Your task to perform on an android device: clear all cookies in the chrome app Image 0: 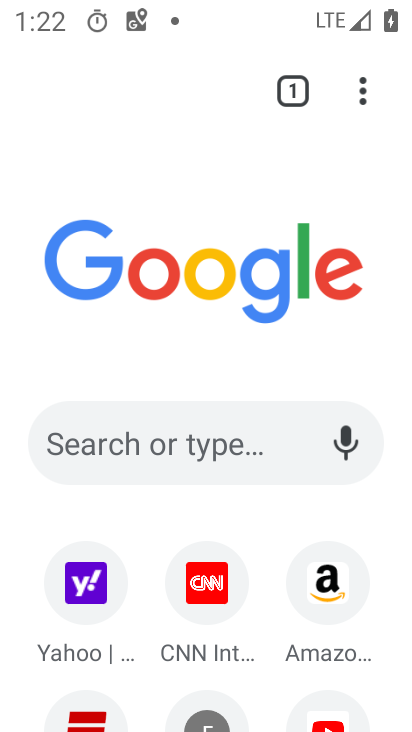
Step 0: click (361, 100)
Your task to perform on an android device: clear all cookies in the chrome app Image 1: 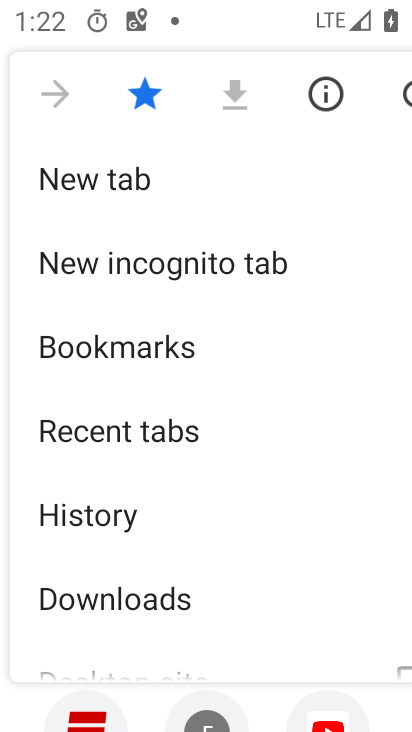
Step 1: drag from (261, 568) to (270, 394)
Your task to perform on an android device: clear all cookies in the chrome app Image 2: 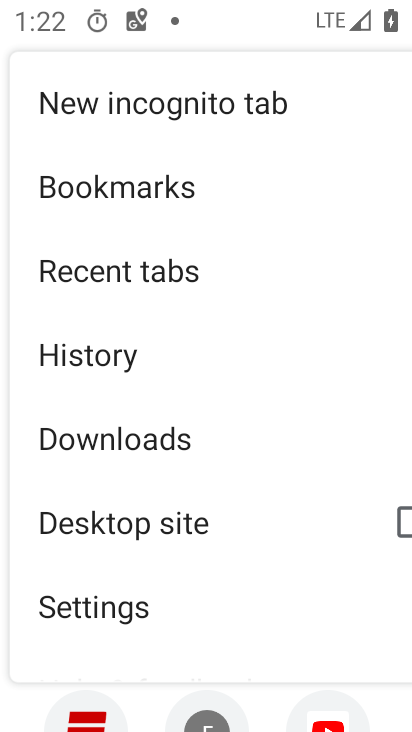
Step 2: drag from (280, 579) to (303, 451)
Your task to perform on an android device: clear all cookies in the chrome app Image 3: 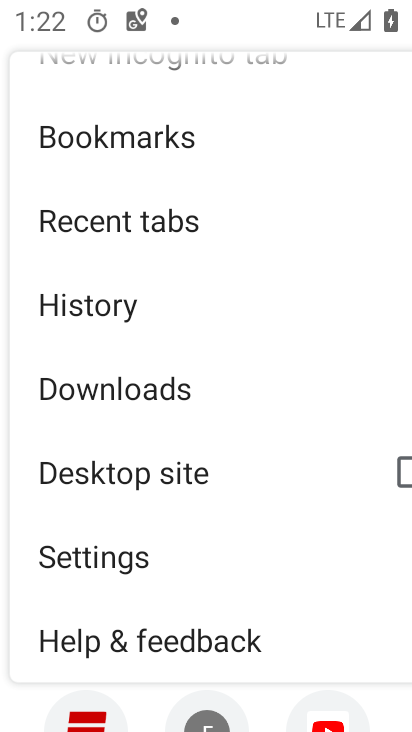
Step 3: drag from (273, 576) to (273, 436)
Your task to perform on an android device: clear all cookies in the chrome app Image 4: 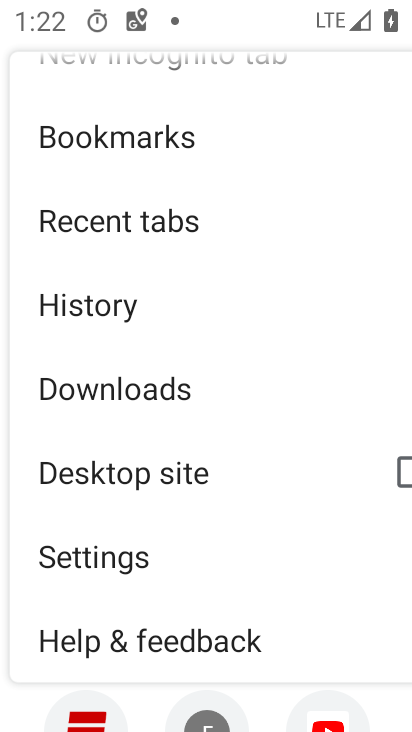
Step 4: click (154, 566)
Your task to perform on an android device: clear all cookies in the chrome app Image 5: 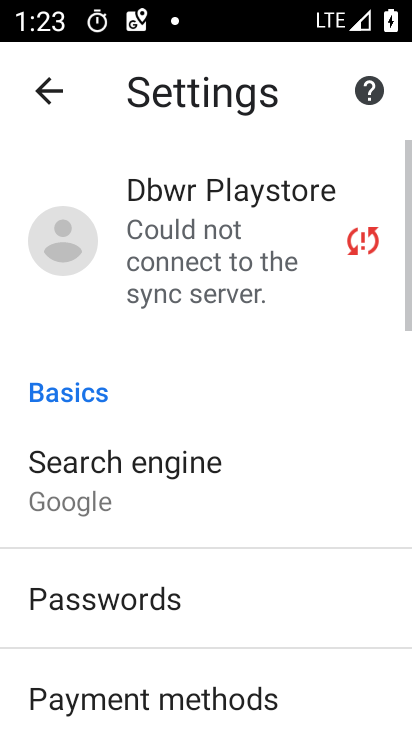
Step 5: drag from (288, 639) to (314, 499)
Your task to perform on an android device: clear all cookies in the chrome app Image 6: 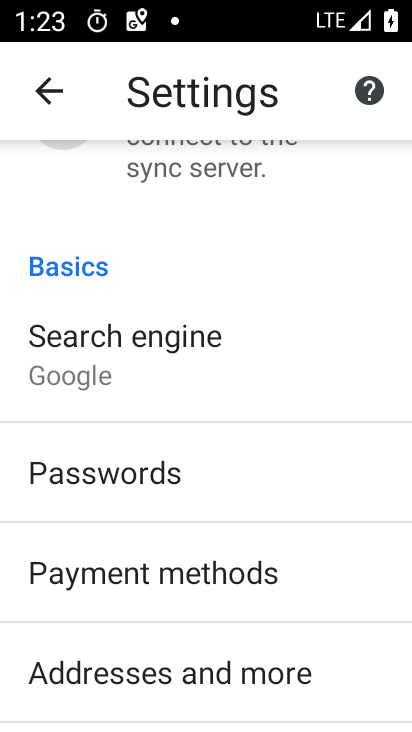
Step 6: drag from (366, 594) to (369, 471)
Your task to perform on an android device: clear all cookies in the chrome app Image 7: 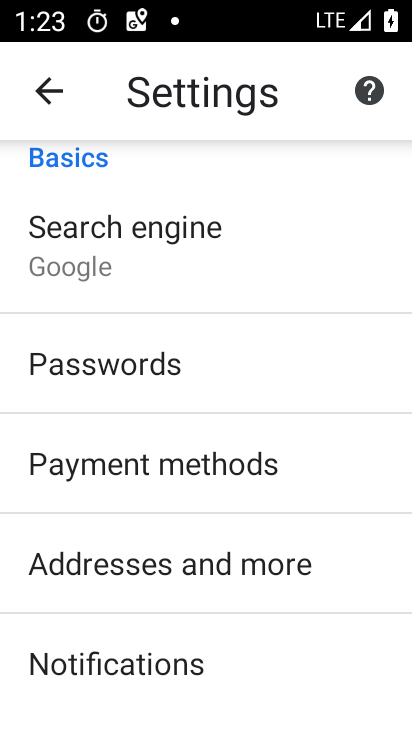
Step 7: drag from (362, 600) to (357, 479)
Your task to perform on an android device: clear all cookies in the chrome app Image 8: 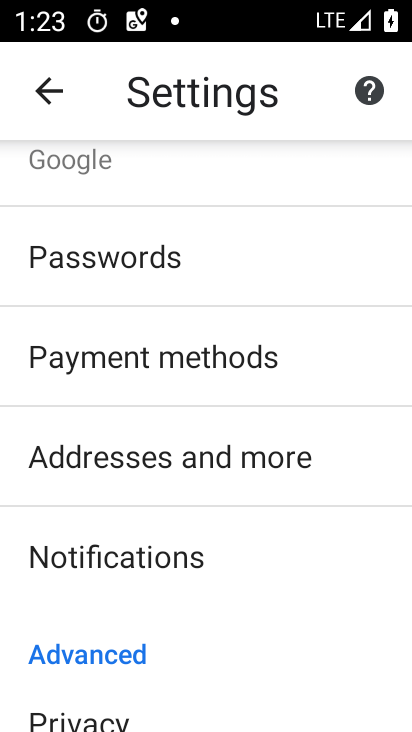
Step 8: drag from (336, 610) to (335, 473)
Your task to perform on an android device: clear all cookies in the chrome app Image 9: 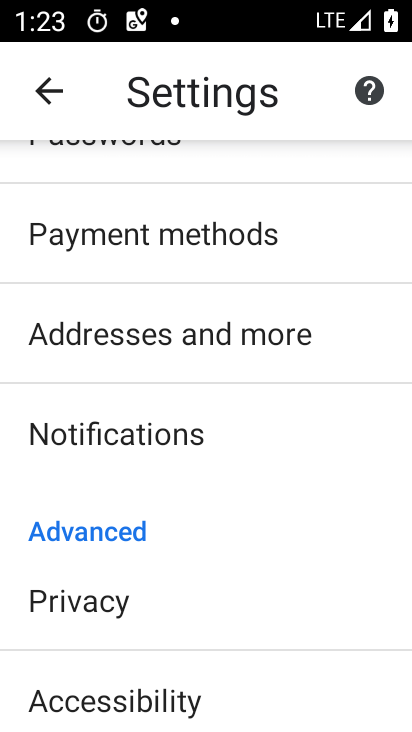
Step 9: drag from (333, 617) to (336, 514)
Your task to perform on an android device: clear all cookies in the chrome app Image 10: 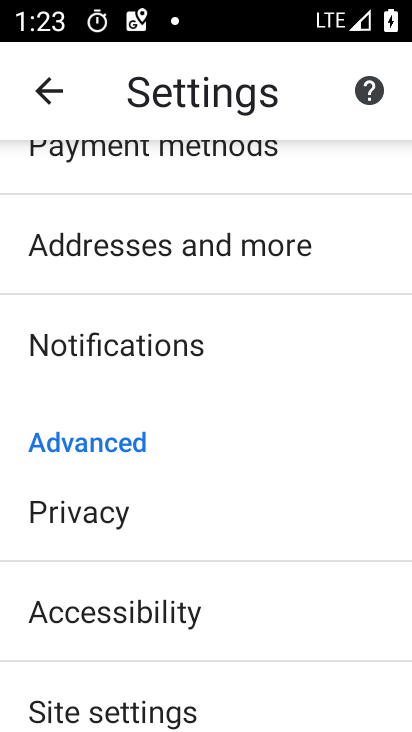
Step 10: drag from (353, 654) to (358, 527)
Your task to perform on an android device: clear all cookies in the chrome app Image 11: 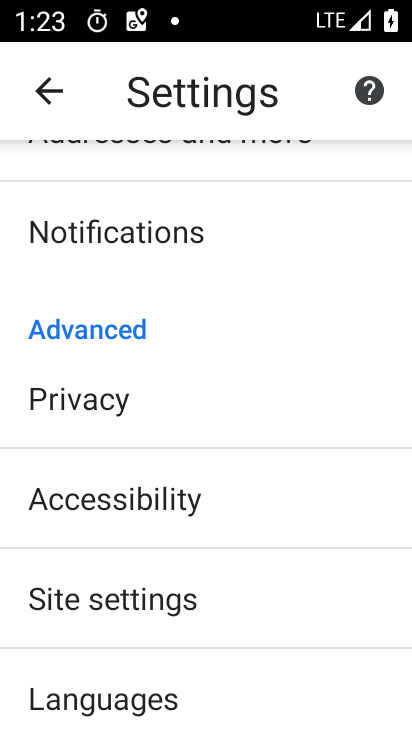
Step 11: drag from (352, 643) to (334, 534)
Your task to perform on an android device: clear all cookies in the chrome app Image 12: 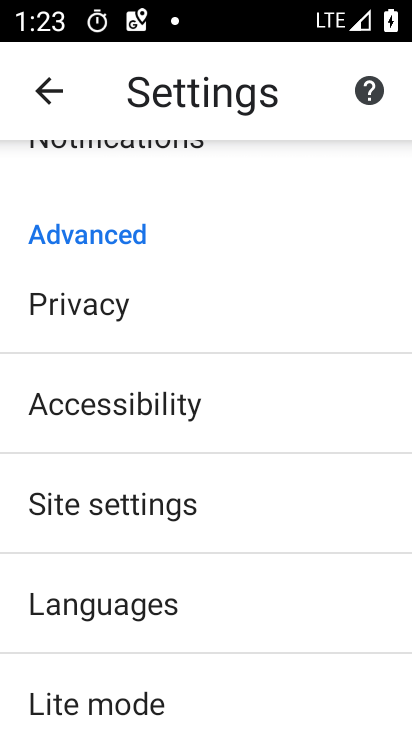
Step 12: drag from (348, 631) to (353, 557)
Your task to perform on an android device: clear all cookies in the chrome app Image 13: 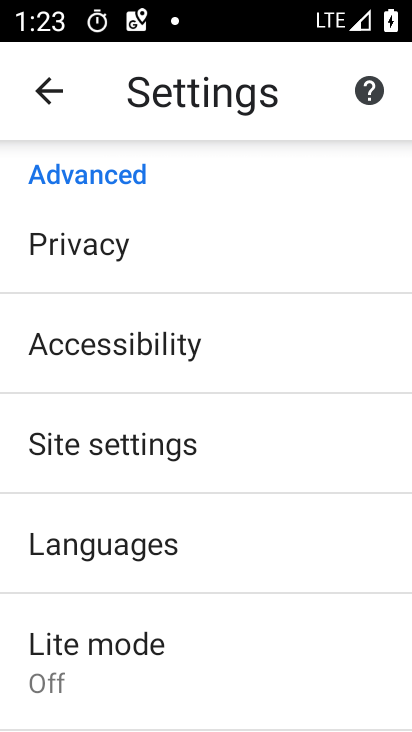
Step 13: click (273, 271)
Your task to perform on an android device: clear all cookies in the chrome app Image 14: 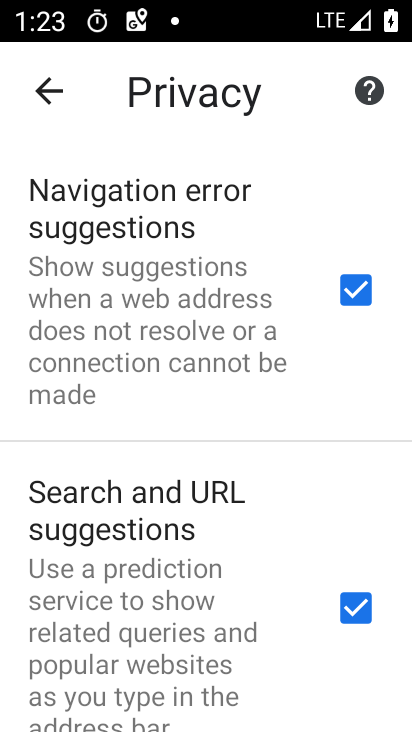
Step 14: drag from (286, 568) to (290, 469)
Your task to perform on an android device: clear all cookies in the chrome app Image 15: 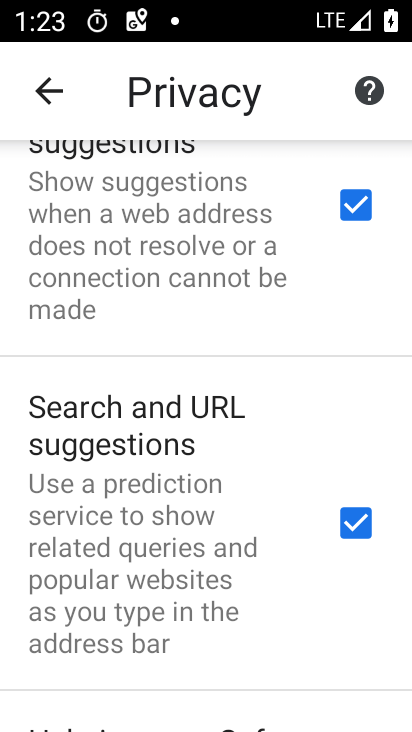
Step 15: drag from (261, 592) to (270, 449)
Your task to perform on an android device: clear all cookies in the chrome app Image 16: 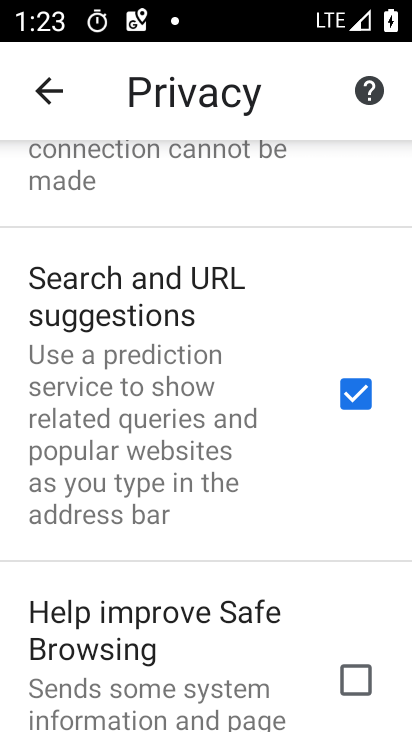
Step 16: drag from (302, 586) to (294, 461)
Your task to perform on an android device: clear all cookies in the chrome app Image 17: 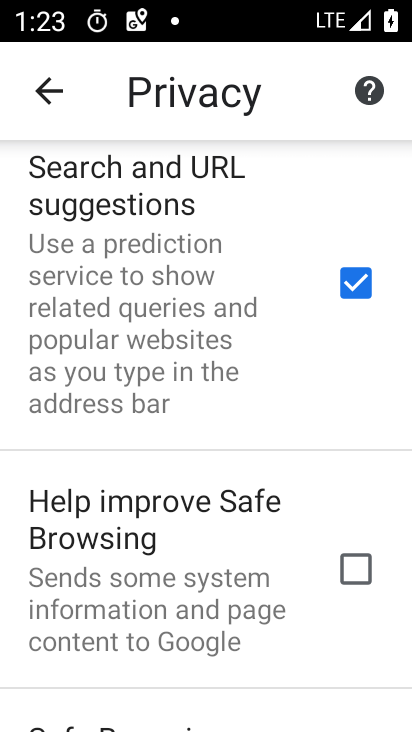
Step 17: drag from (316, 611) to (298, 498)
Your task to perform on an android device: clear all cookies in the chrome app Image 18: 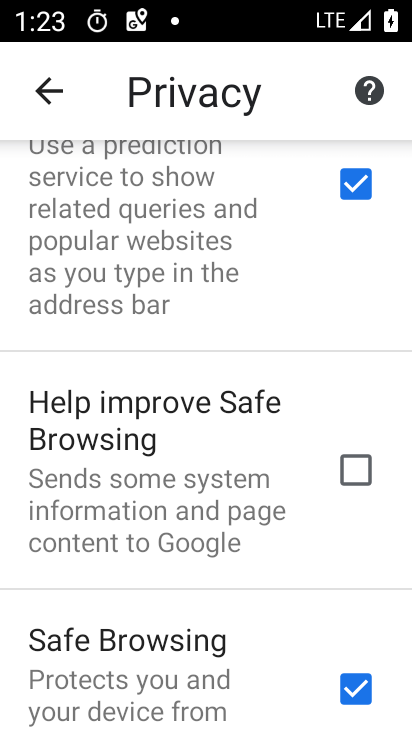
Step 18: drag from (286, 589) to (284, 510)
Your task to perform on an android device: clear all cookies in the chrome app Image 19: 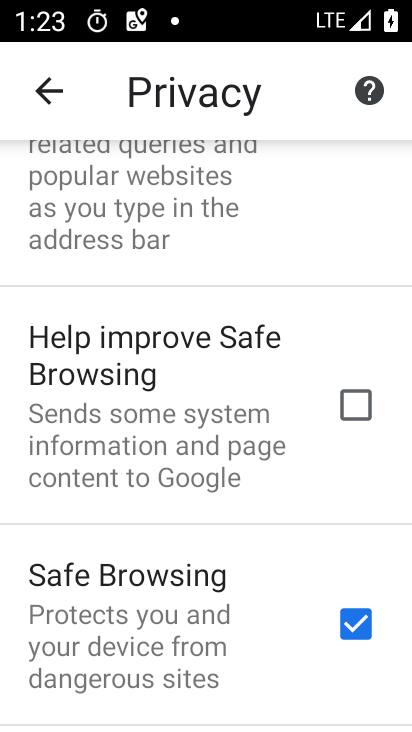
Step 19: drag from (266, 641) to (266, 505)
Your task to perform on an android device: clear all cookies in the chrome app Image 20: 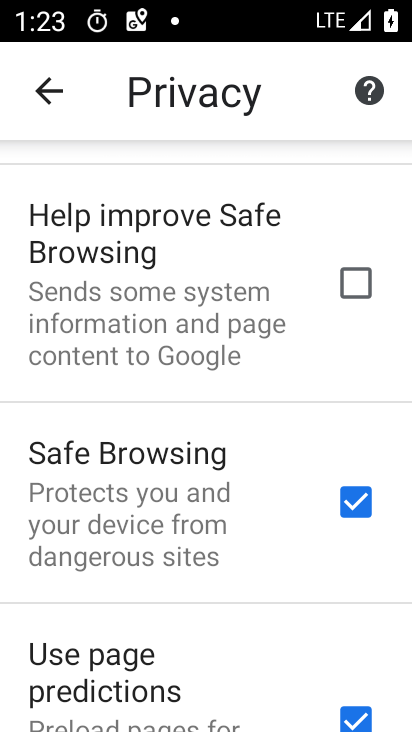
Step 20: drag from (273, 623) to (292, 492)
Your task to perform on an android device: clear all cookies in the chrome app Image 21: 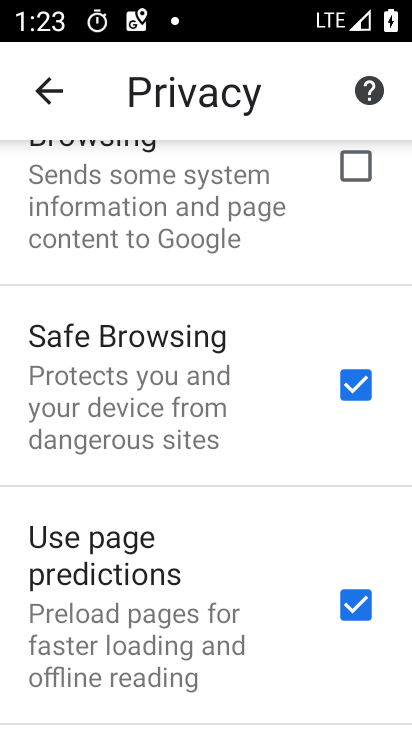
Step 21: drag from (276, 617) to (281, 487)
Your task to perform on an android device: clear all cookies in the chrome app Image 22: 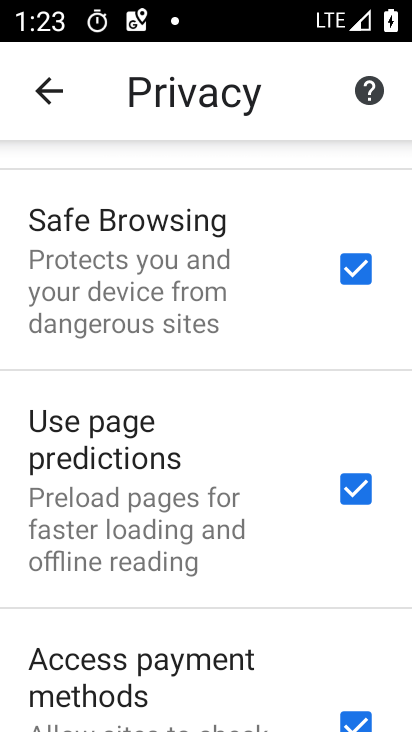
Step 22: drag from (262, 661) to (263, 537)
Your task to perform on an android device: clear all cookies in the chrome app Image 23: 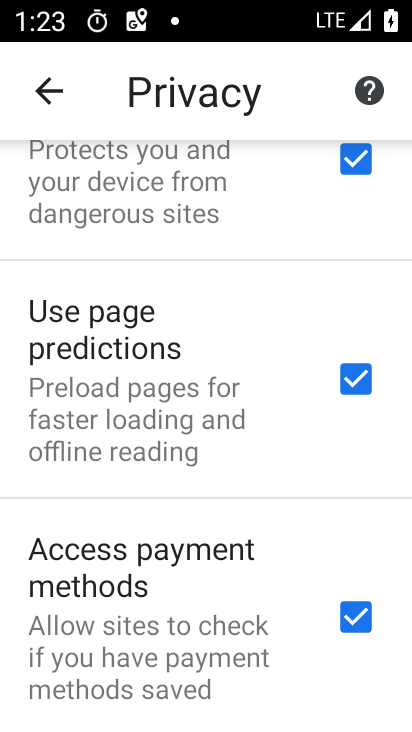
Step 23: drag from (274, 646) to (286, 516)
Your task to perform on an android device: clear all cookies in the chrome app Image 24: 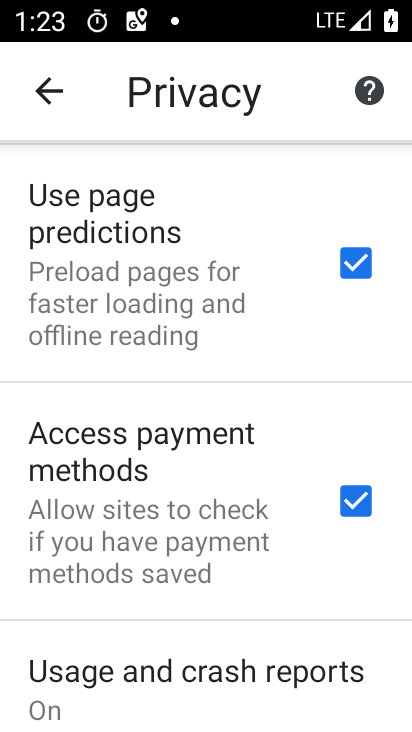
Step 24: drag from (280, 649) to (288, 501)
Your task to perform on an android device: clear all cookies in the chrome app Image 25: 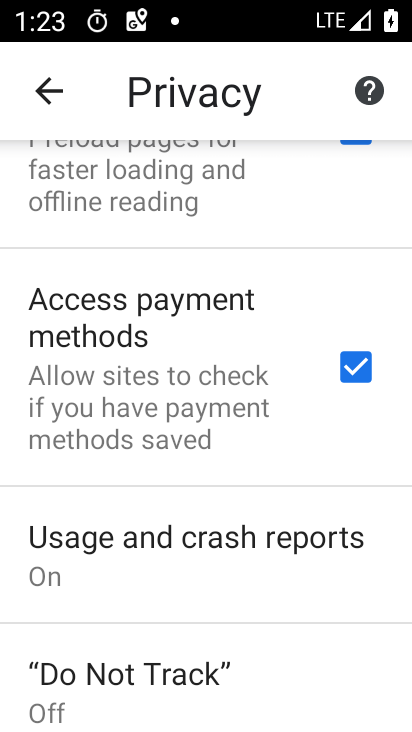
Step 25: drag from (263, 666) to (274, 536)
Your task to perform on an android device: clear all cookies in the chrome app Image 26: 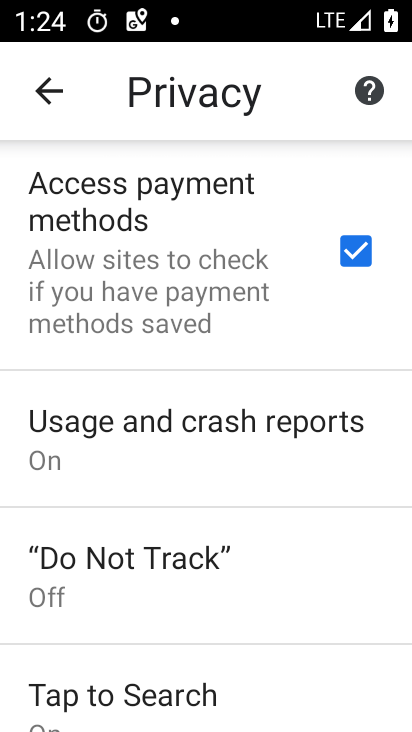
Step 26: drag from (275, 696) to (288, 510)
Your task to perform on an android device: clear all cookies in the chrome app Image 27: 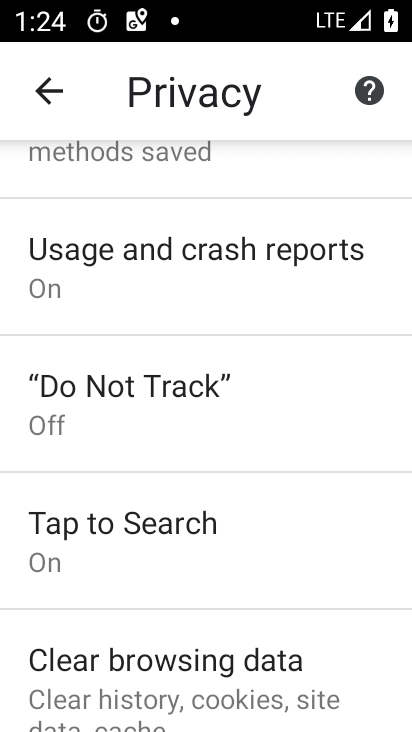
Step 27: click (256, 690)
Your task to perform on an android device: clear all cookies in the chrome app Image 28: 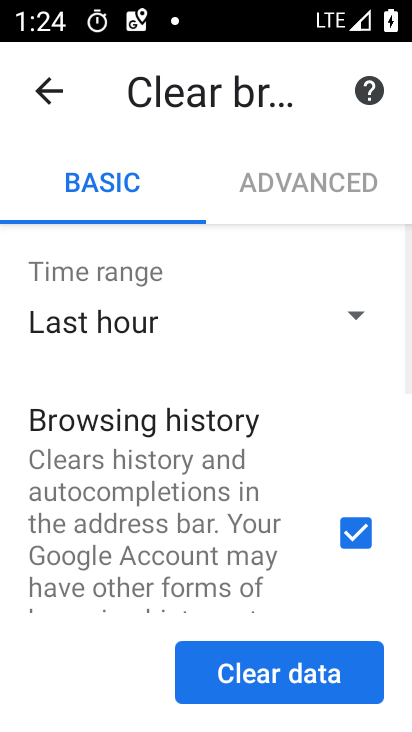
Step 28: click (256, 690)
Your task to perform on an android device: clear all cookies in the chrome app Image 29: 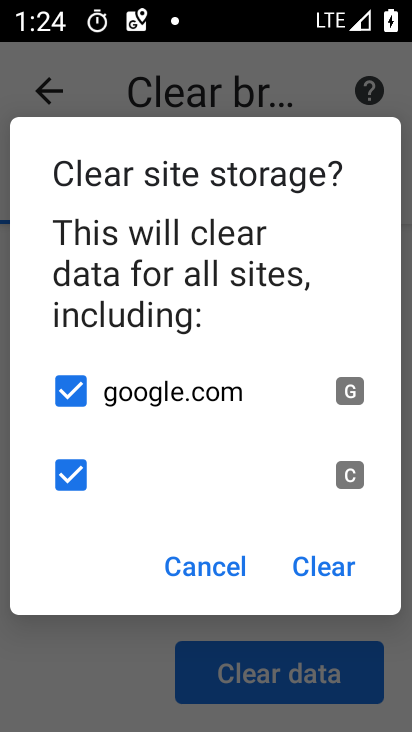
Step 29: click (342, 573)
Your task to perform on an android device: clear all cookies in the chrome app Image 30: 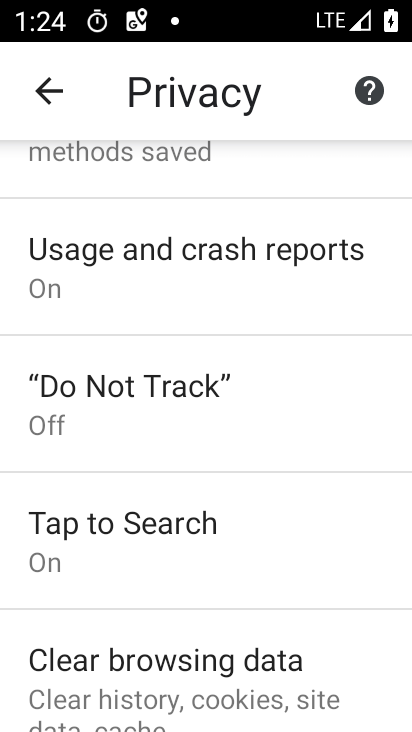
Step 30: task complete